Your task to perform on an android device: Play the last video I watched on Youtube Image 0: 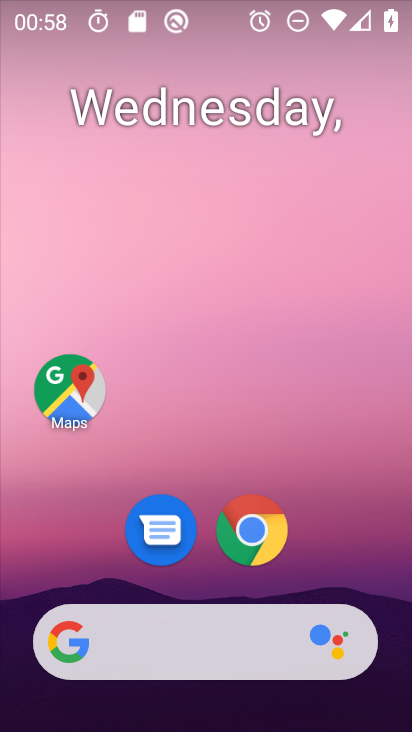
Step 0: drag from (258, 590) to (316, 0)
Your task to perform on an android device: Play the last video I watched on Youtube Image 1: 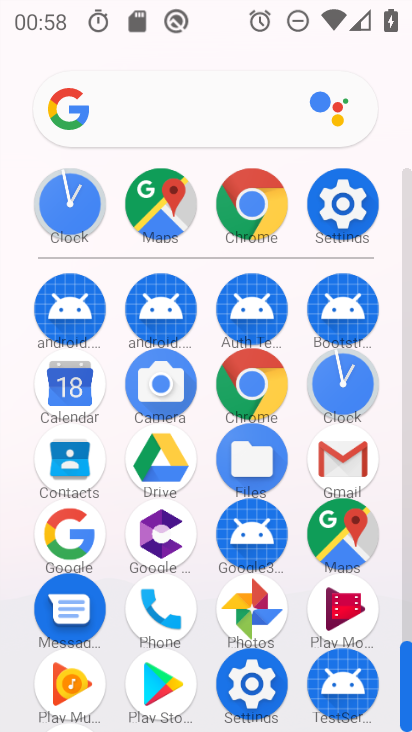
Step 1: drag from (295, 614) to (273, 148)
Your task to perform on an android device: Play the last video I watched on Youtube Image 2: 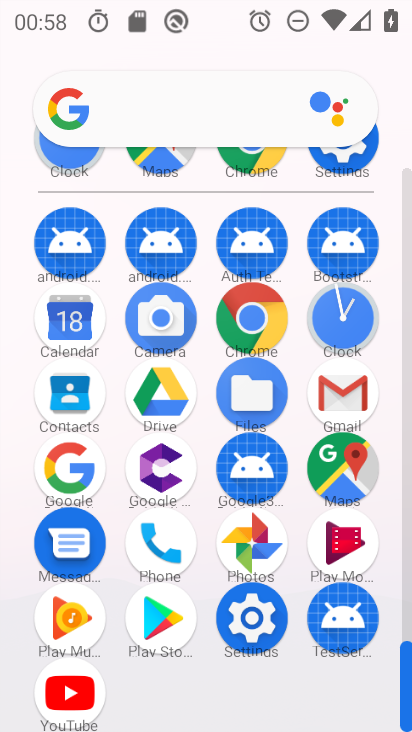
Step 2: click (73, 704)
Your task to perform on an android device: Play the last video I watched on Youtube Image 3: 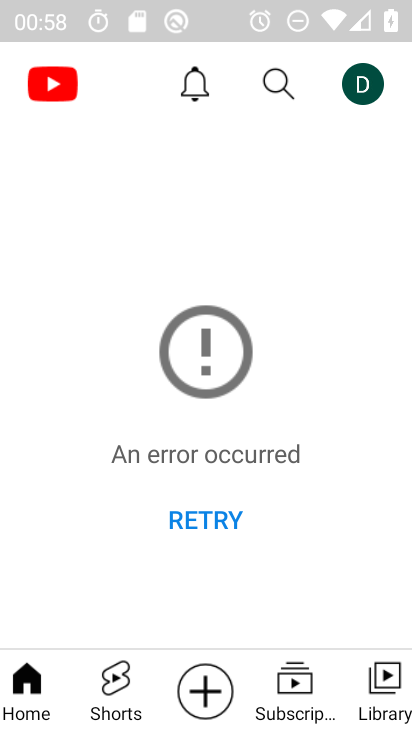
Step 3: click (393, 690)
Your task to perform on an android device: Play the last video I watched on Youtube Image 4: 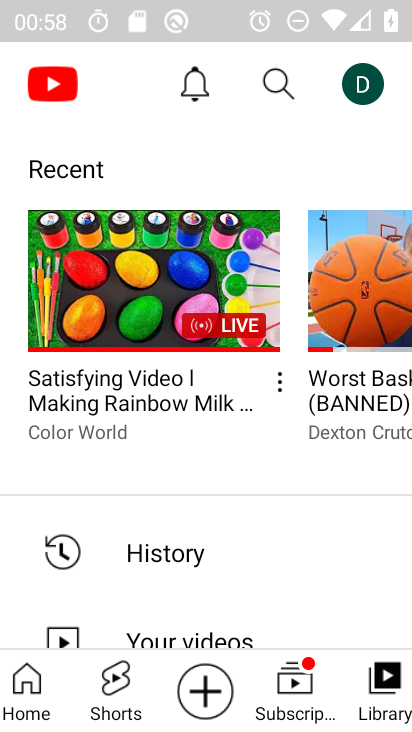
Step 4: click (145, 301)
Your task to perform on an android device: Play the last video I watched on Youtube Image 5: 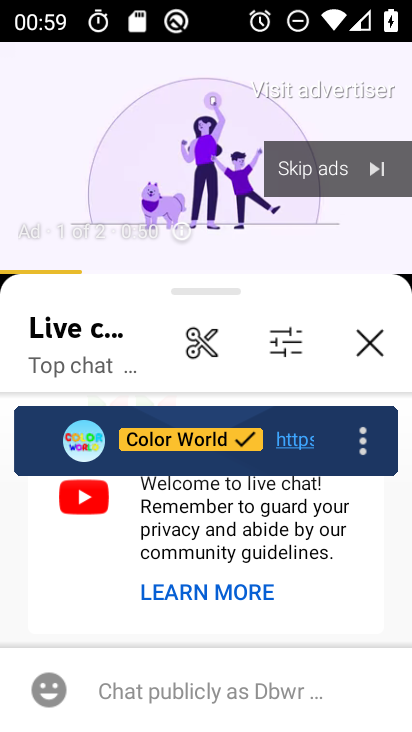
Step 5: task complete